Your task to perform on an android device: turn off location history Image 0: 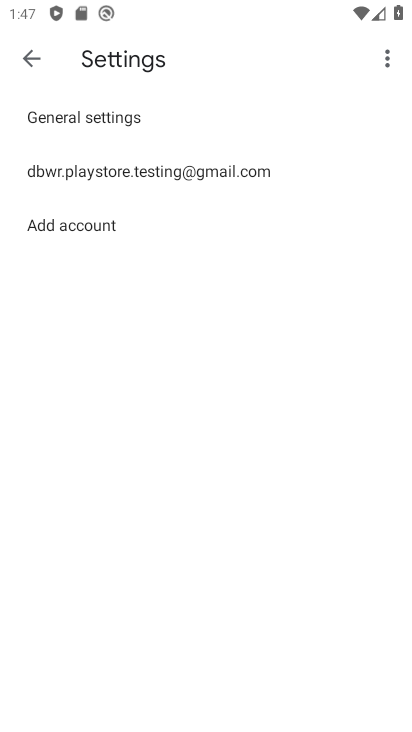
Step 0: press home button
Your task to perform on an android device: turn off location history Image 1: 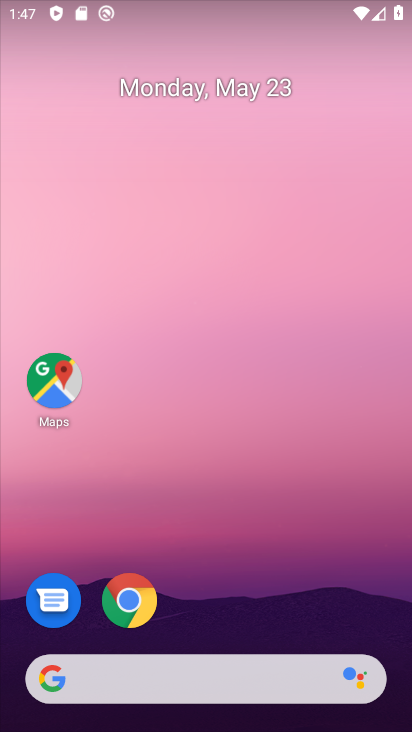
Step 1: drag from (262, 611) to (271, 279)
Your task to perform on an android device: turn off location history Image 2: 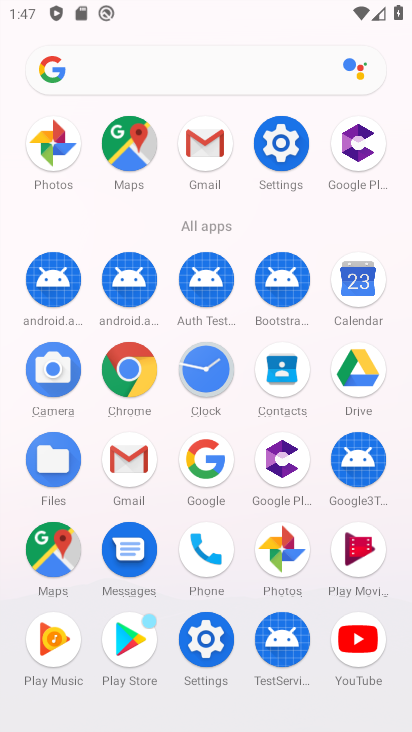
Step 2: click (271, 146)
Your task to perform on an android device: turn off location history Image 3: 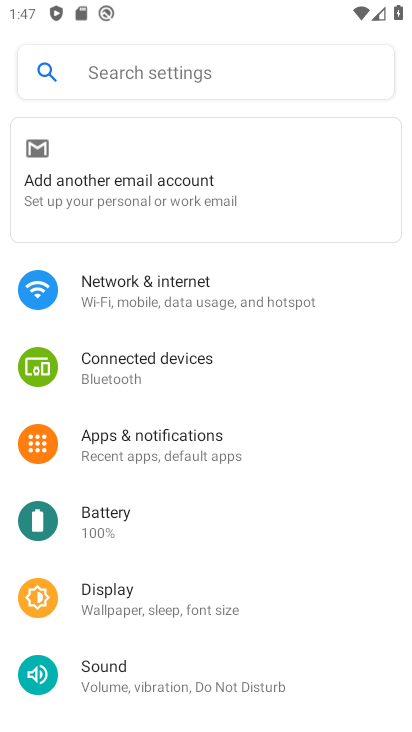
Step 3: drag from (229, 623) to (245, 280)
Your task to perform on an android device: turn off location history Image 4: 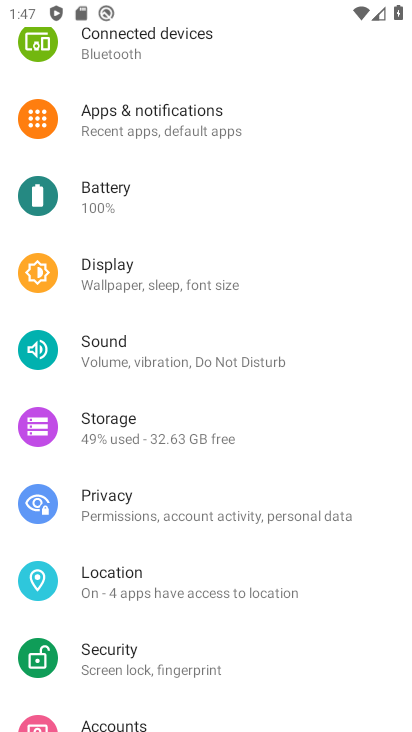
Step 4: click (160, 584)
Your task to perform on an android device: turn off location history Image 5: 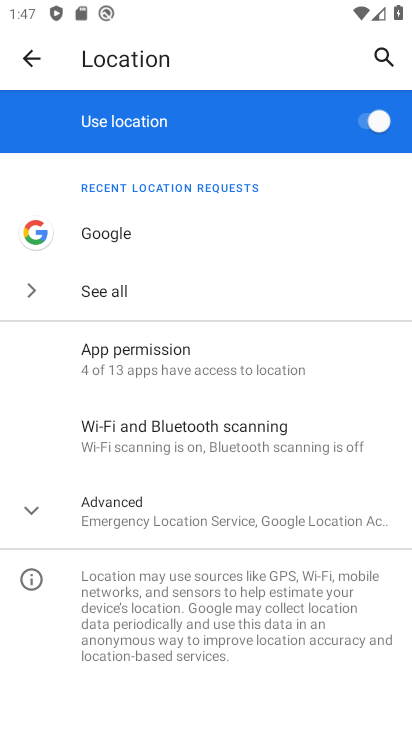
Step 5: drag from (240, 569) to (239, 498)
Your task to perform on an android device: turn off location history Image 6: 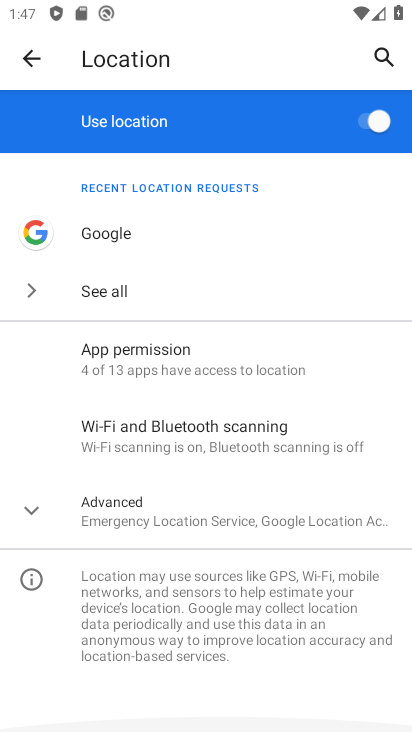
Step 6: click (238, 497)
Your task to perform on an android device: turn off location history Image 7: 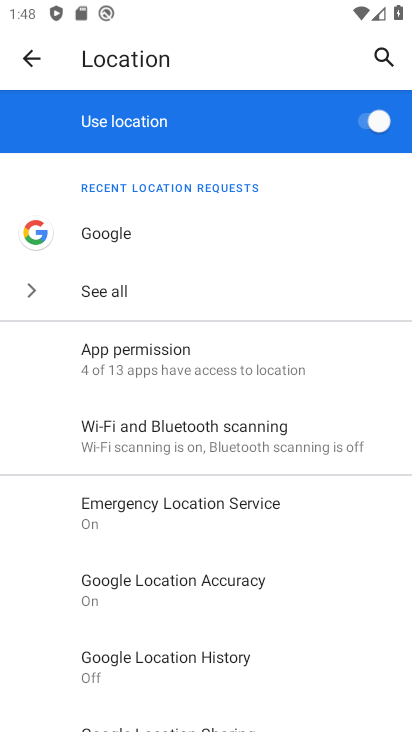
Step 7: drag from (286, 618) to (296, 479)
Your task to perform on an android device: turn off location history Image 8: 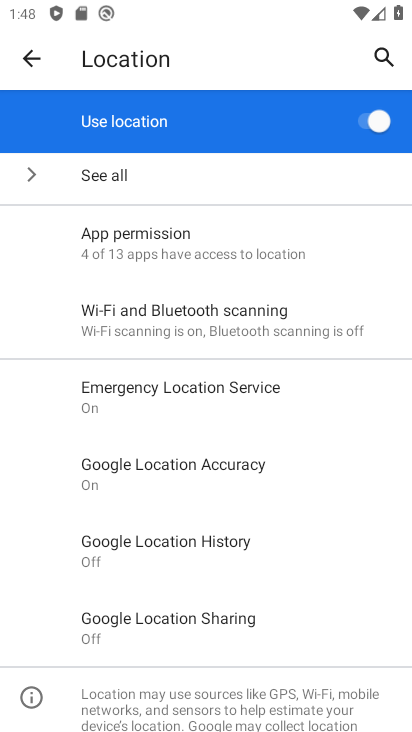
Step 8: click (194, 561)
Your task to perform on an android device: turn off location history Image 9: 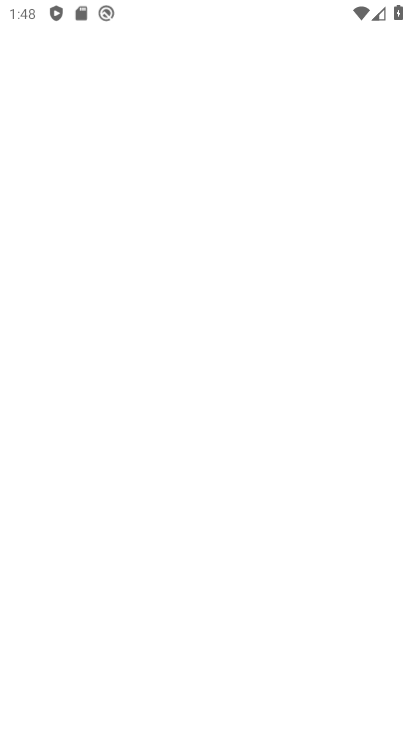
Step 9: task complete